Your task to perform on an android device: Show me the alarms in the clock app Image 0: 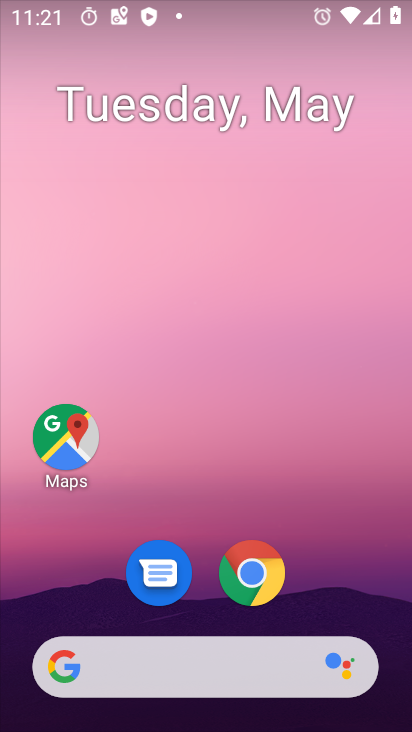
Step 0: drag from (308, 708) to (359, 171)
Your task to perform on an android device: Show me the alarms in the clock app Image 1: 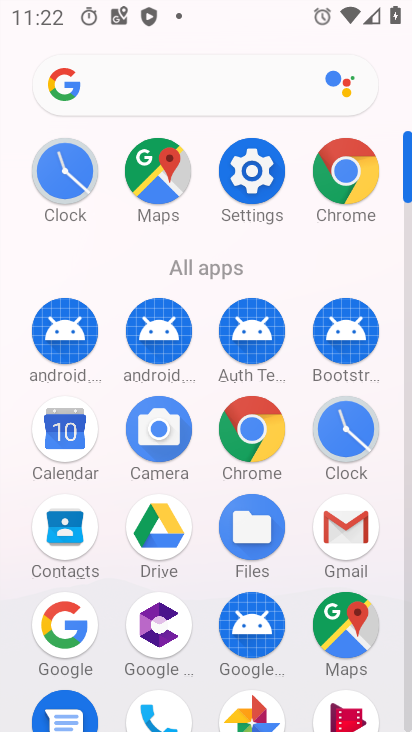
Step 1: click (338, 418)
Your task to perform on an android device: Show me the alarms in the clock app Image 2: 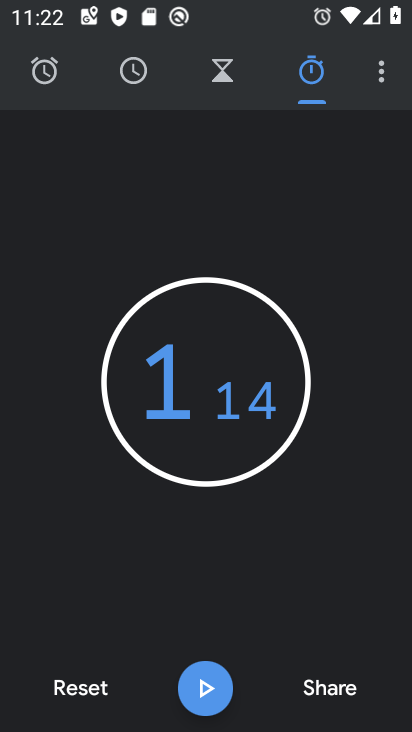
Step 2: click (57, 111)
Your task to perform on an android device: Show me the alarms in the clock app Image 3: 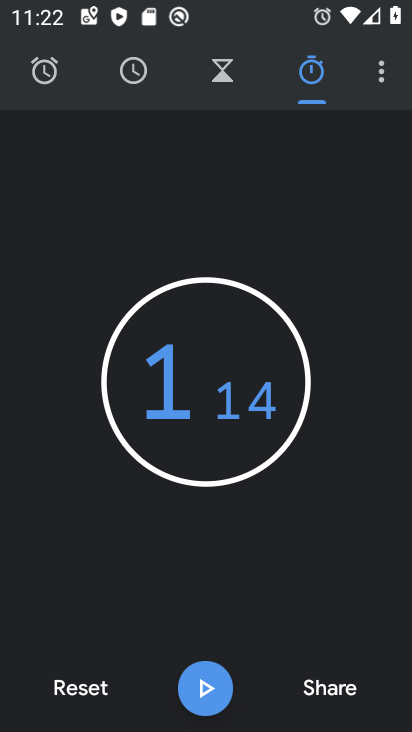
Step 3: click (55, 86)
Your task to perform on an android device: Show me the alarms in the clock app Image 4: 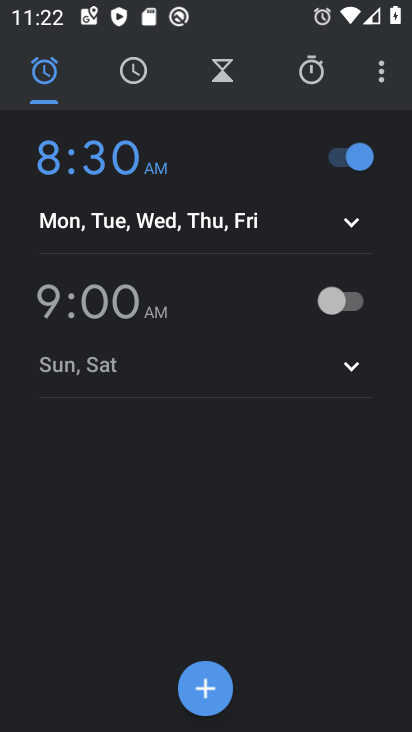
Step 4: task complete